Your task to perform on an android device: What's on my calendar today? Image 0: 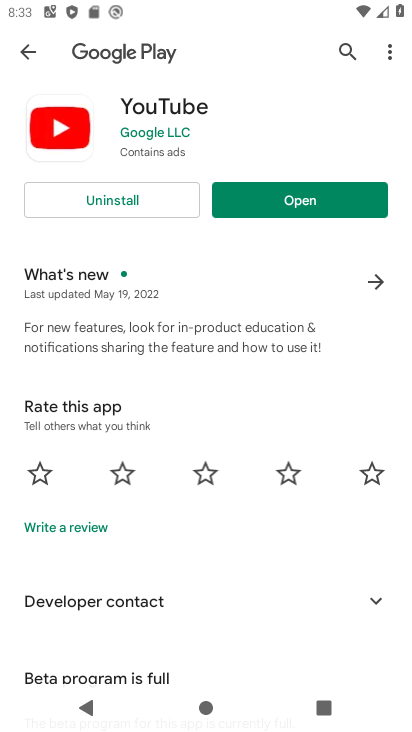
Step 0: press home button
Your task to perform on an android device: What's on my calendar today? Image 1: 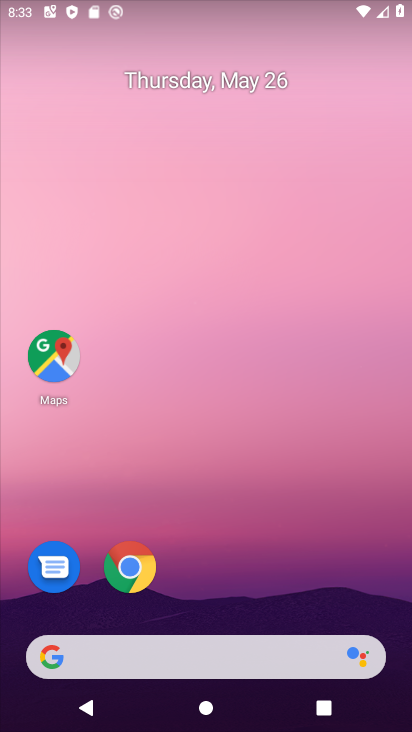
Step 1: drag from (221, 655) to (408, 54)
Your task to perform on an android device: What's on my calendar today? Image 2: 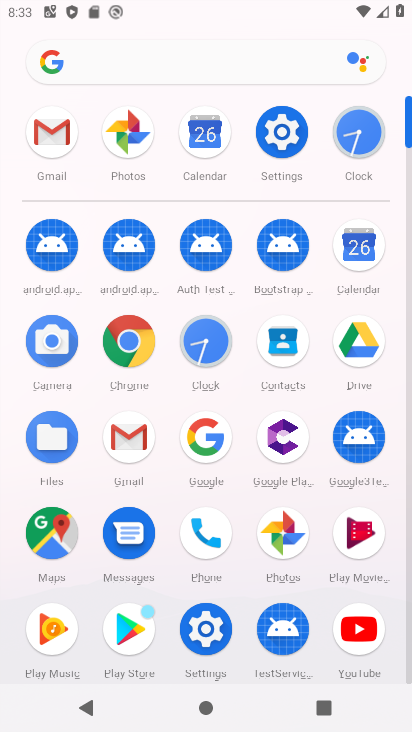
Step 2: click (371, 252)
Your task to perform on an android device: What's on my calendar today? Image 3: 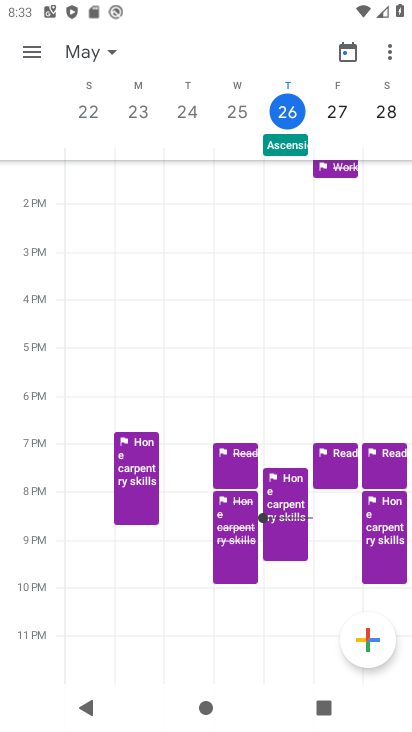
Step 3: click (66, 56)
Your task to perform on an android device: What's on my calendar today? Image 4: 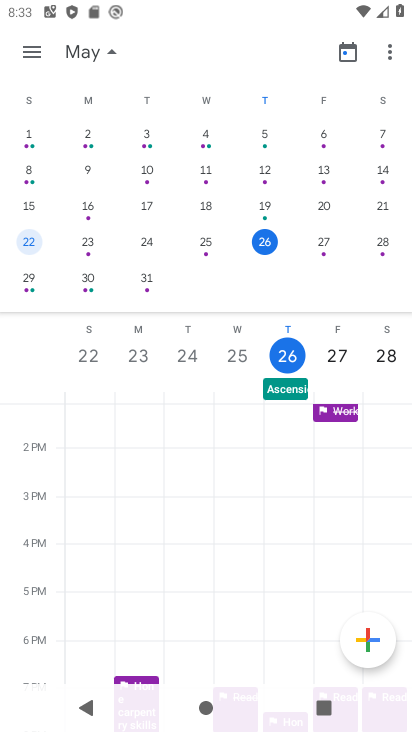
Step 4: click (271, 244)
Your task to perform on an android device: What's on my calendar today? Image 5: 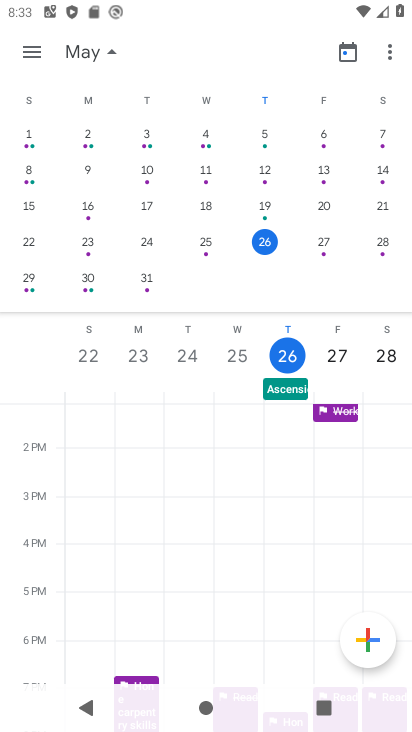
Step 5: click (31, 43)
Your task to perform on an android device: What's on my calendar today? Image 6: 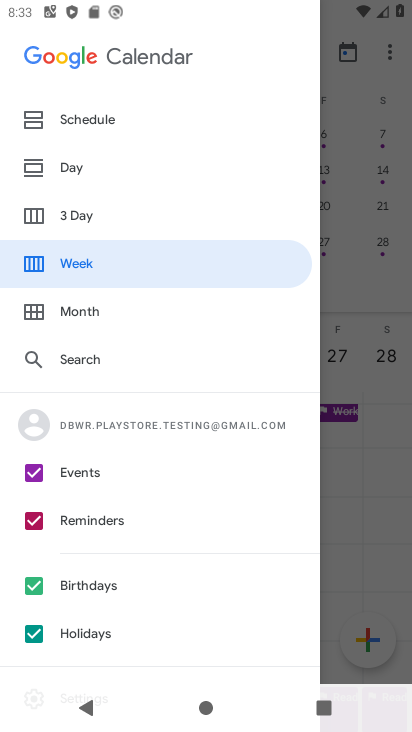
Step 6: click (73, 165)
Your task to perform on an android device: What's on my calendar today? Image 7: 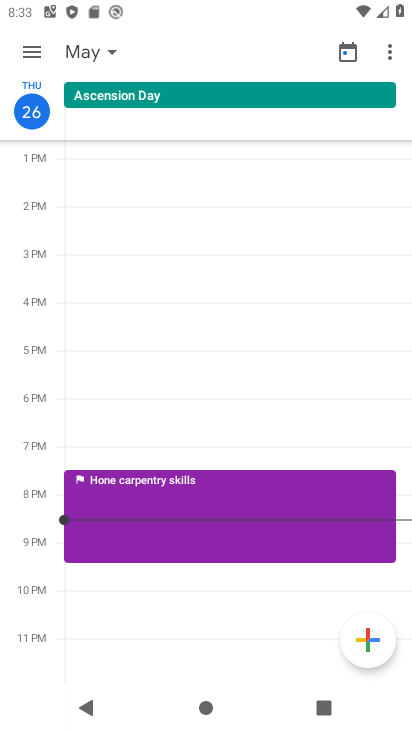
Step 7: click (33, 39)
Your task to perform on an android device: What's on my calendar today? Image 8: 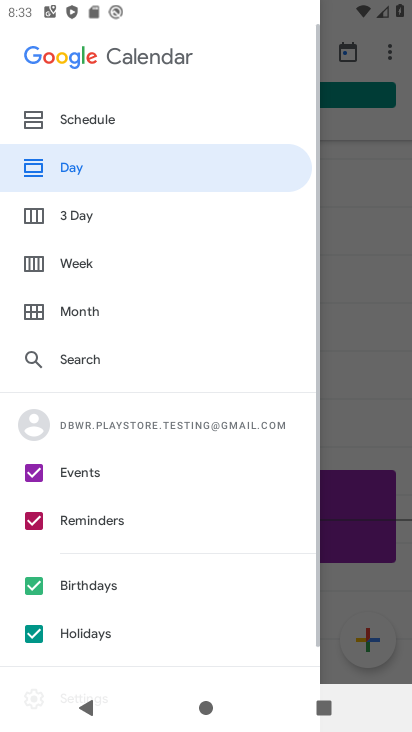
Step 8: click (104, 110)
Your task to perform on an android device: What's on my calendar today? Image 9: 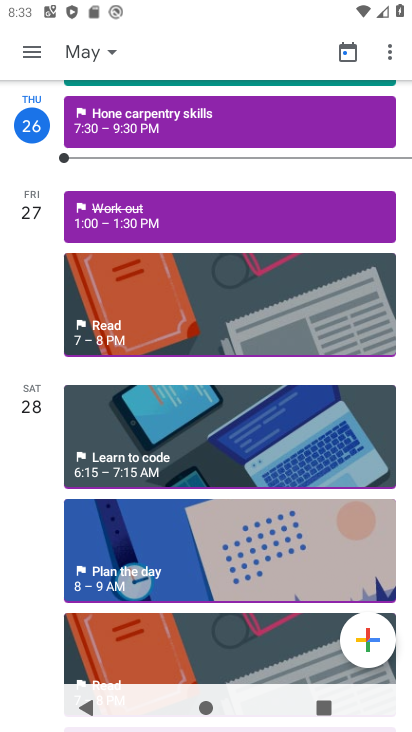
Step 9: click (208, 124)
Your task to perform on an android device: What's on my calendar today? Image 10: 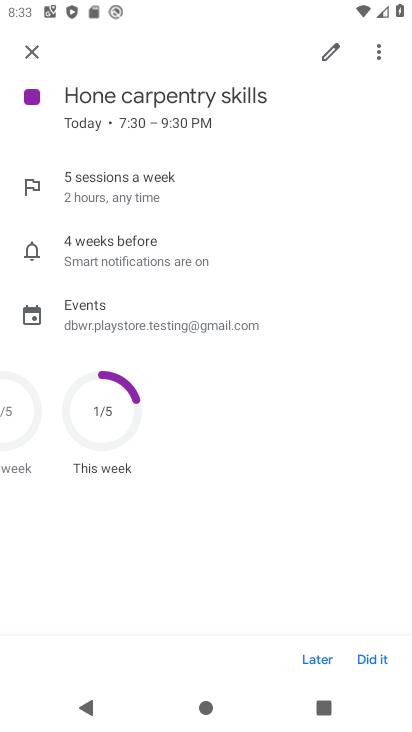
Step 10: task complete